Your task to perform on an android device: open a bookmark in the chrome app Image 0: 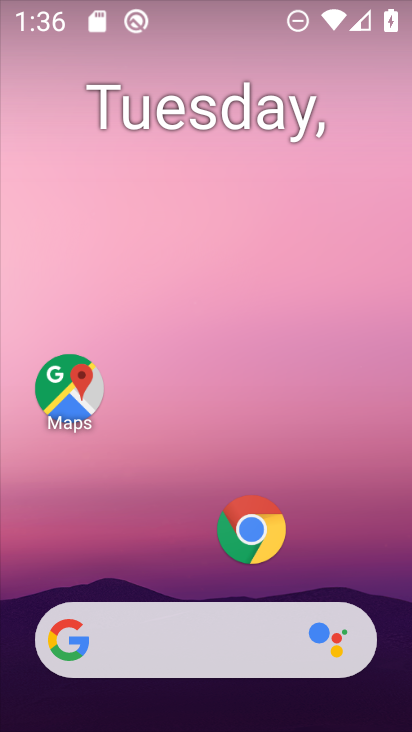
Step 0: press home button
Your task to perform on an android device: open a bookmark in the chrome app Image 1: 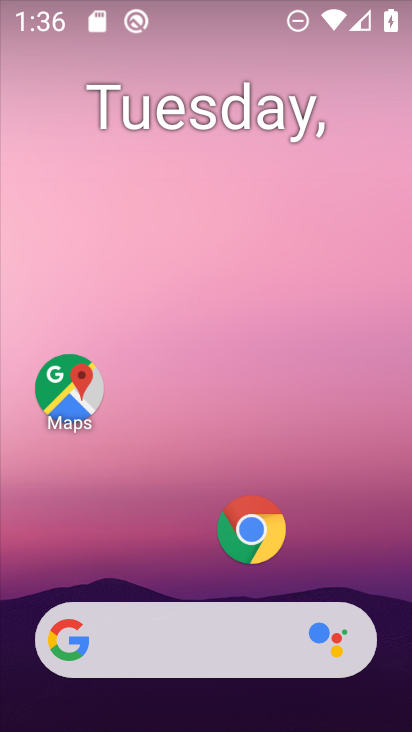
Step 1: drag from (240, 572) to (368, 65)
Your task to perform on an android device: open a bookmark in the chrome app Image 2: 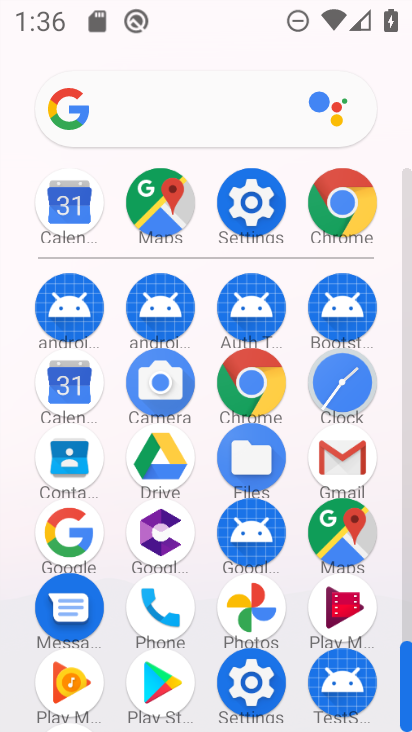
Step 2: click (353, 182)
Your task to perform on an android device: open a bookmark in the chrome app Image 3: 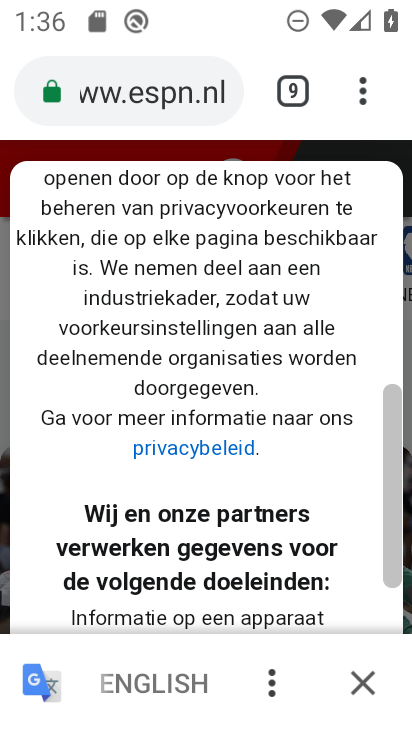
Step 3: click (371, 99)
Your task to perform on an android device: open a bookmark in the chrome app Image 4: 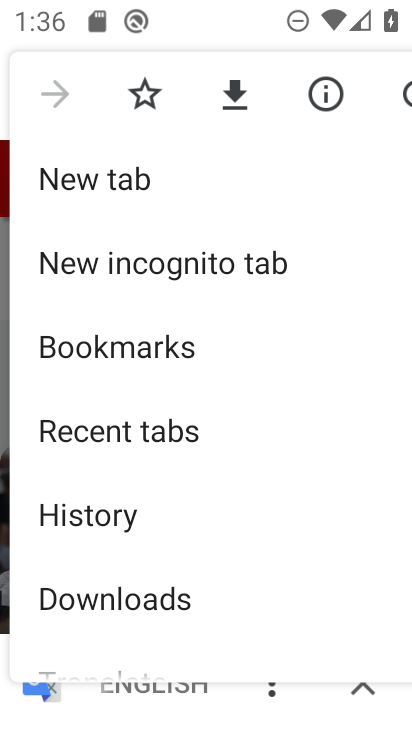
Step 4: click (111, 342)
Your task to perform on an android device: open a bookmark in the chrome app Image 5: 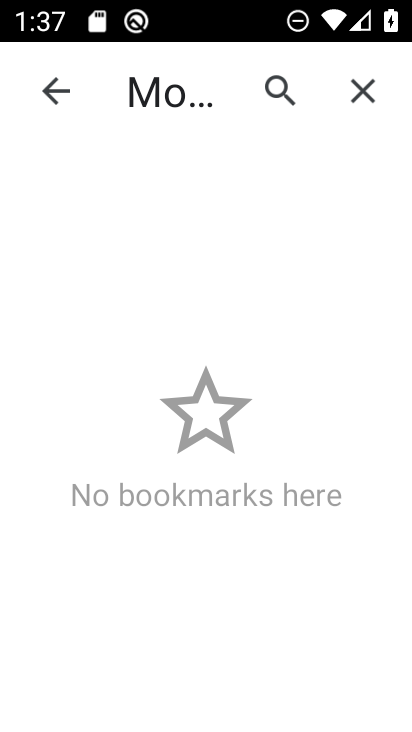
Step 5: task complete